Your task to perform on an android device: delete location history Image 0: 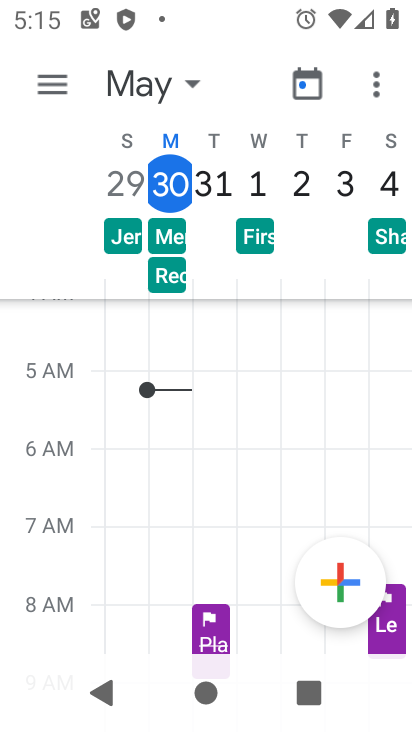
Step 0: press home button
Your task to perform on an android device: delete location history Image 1: 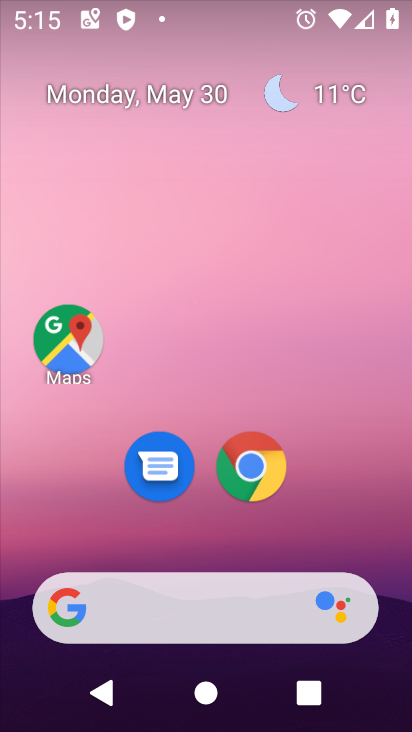
Step 1: drag from (333, 476) to (124, 6)
Your task to perform on an android device: delete location history Image 2: 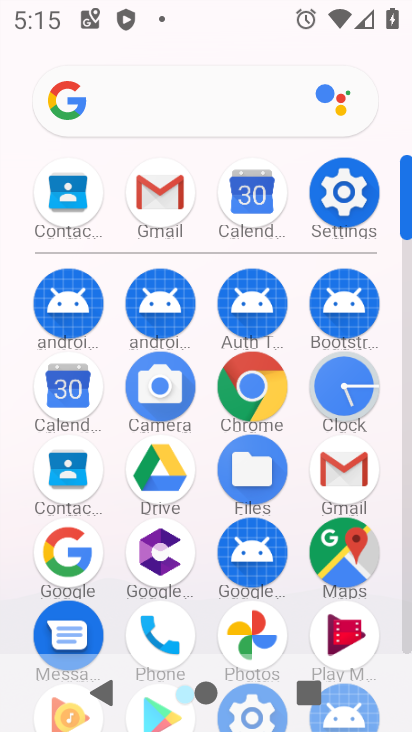
Step 2: click (334, 552)
Your task to perform on an android device: delete location history Image 3: 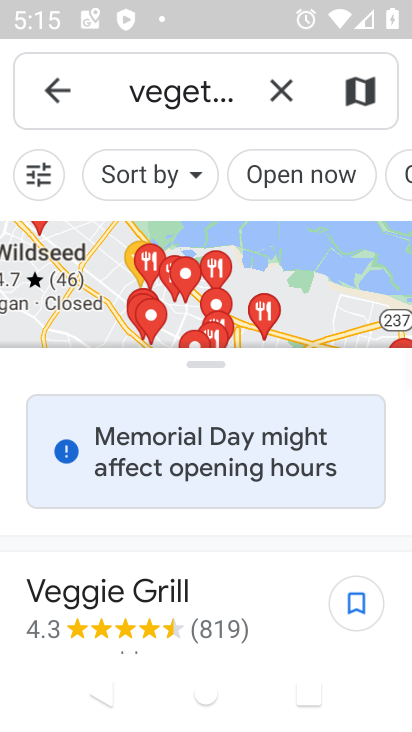
Step 3: click (58, 88)
Your task to perform on an android device: delete location history Image 4: 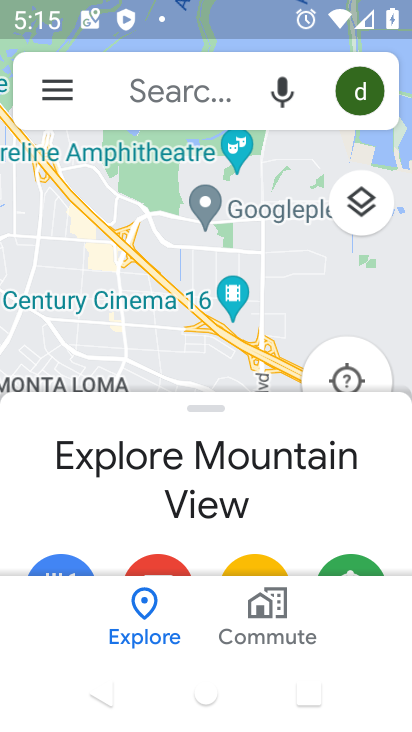
Step 4: click (59, 88)
Your task to perform on an android device: delete location history Image 5: 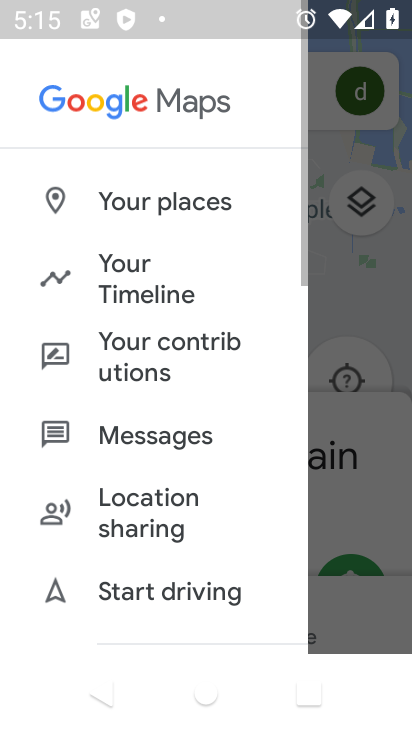
Step 5: drag from (194, 508) to (226, 82)
Your task to perform on an android device: delete location history Image 6: 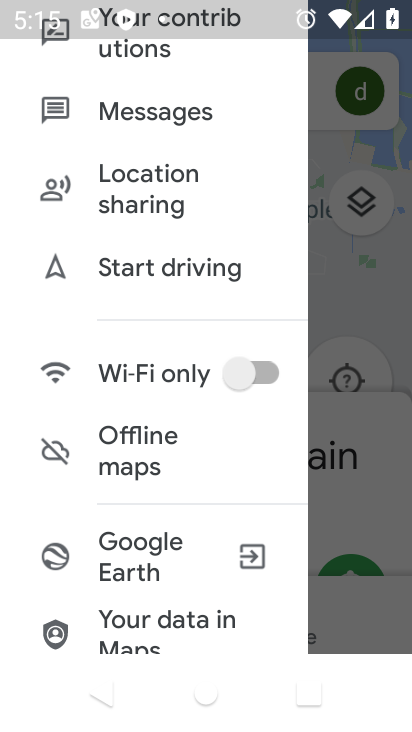
Step 6: drag from (177, 499) to (187, 106)
Your task to perform on an android device: delete location history Image 7: 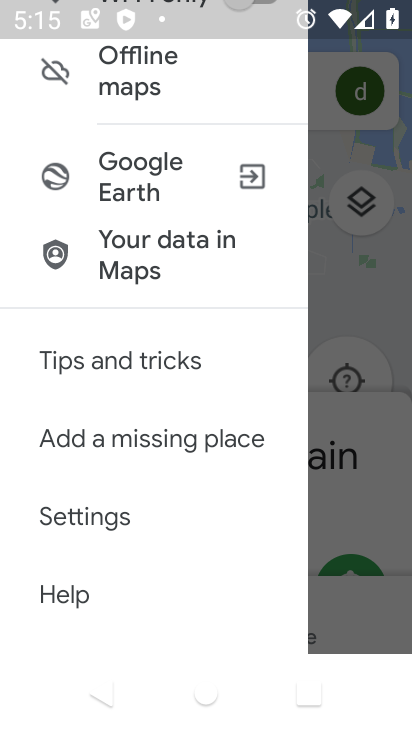
Step 7: drag from (143, 468) to (160, 133)
Your task to perform on an android device: delete location history Image 8: 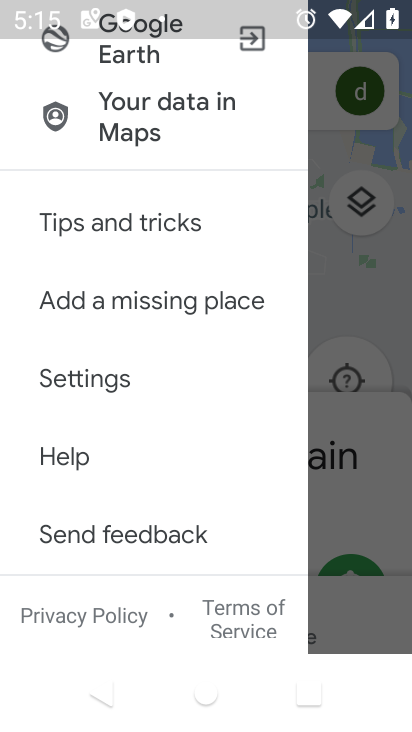
Step 8: click (92, 387)
Your task to perform on an android device: delete location history Image 9: 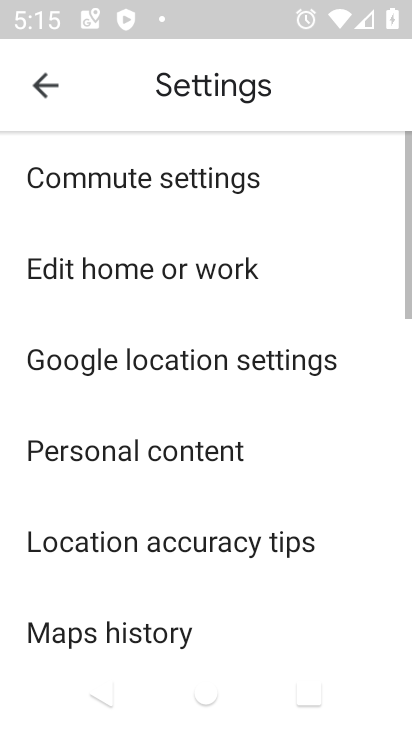
Step 9: drag from (169, 550) to (199, 56)
Your task to perform on an android device: delete location history Image 10: 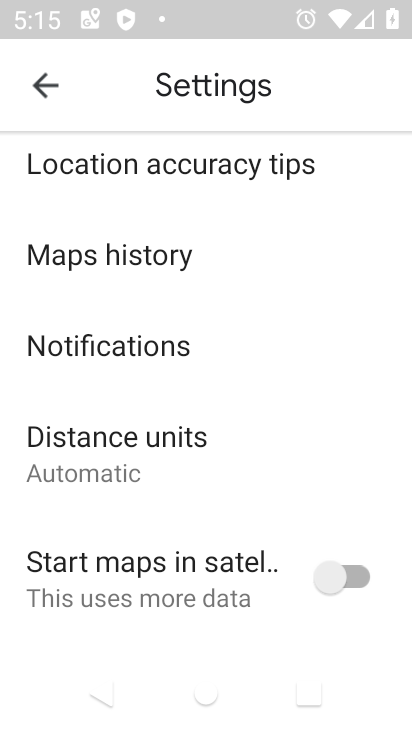
Step 10: click (137, 256)
Your task to perform on an android device: delete location history Image 11: 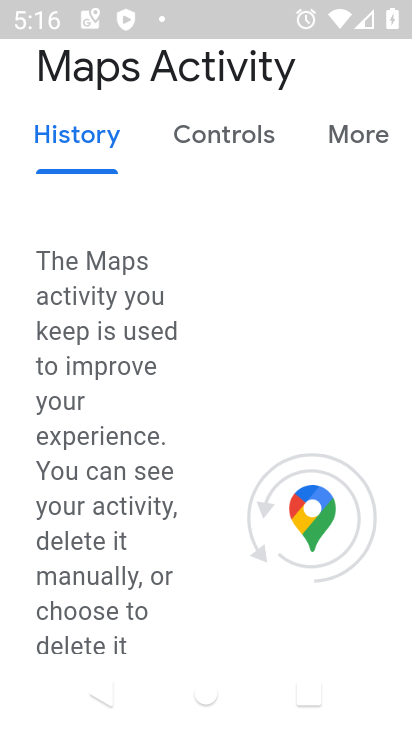
Step 11: drag from (124, 501) to (181, 66)
Your task to perform on an android device: delete location history Image 12: 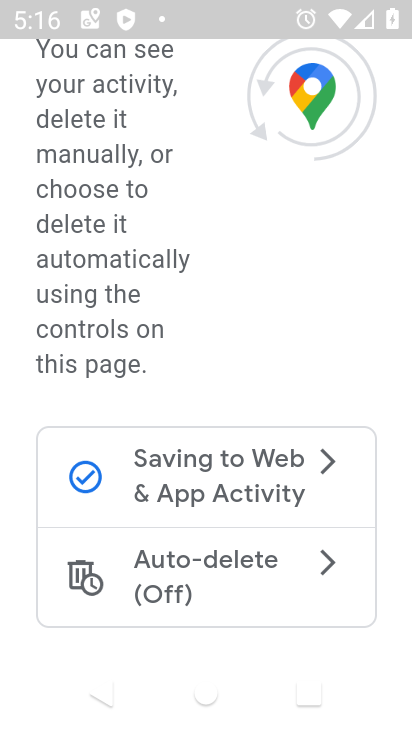
Step 12: drag from (168, 438) to (214, 131)
Your task to perform on an android device: delete location history Image 13: 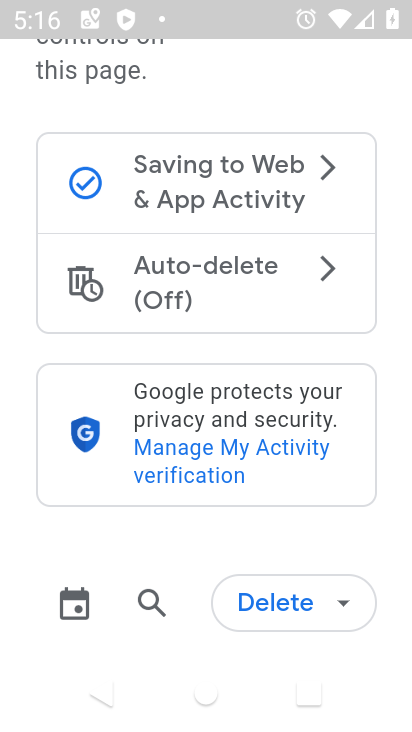
Step 13: click (329, 612)
Your task to perform on an android device: delete location history Image 14: 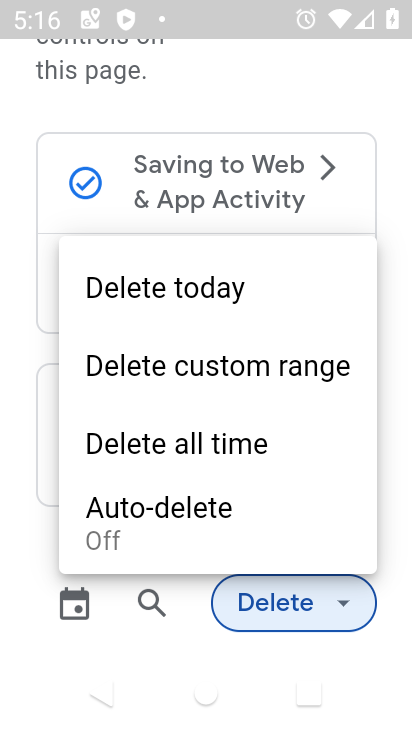
Step 14: click (206, 440)
Your task to perform on an android device: delete location history Image 15: 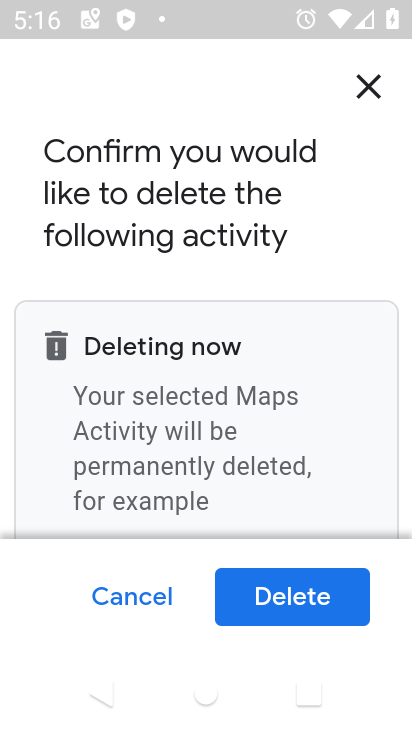
Step 15: click (335, 605)
Your task to perform on an android device: delete location history Image 16: 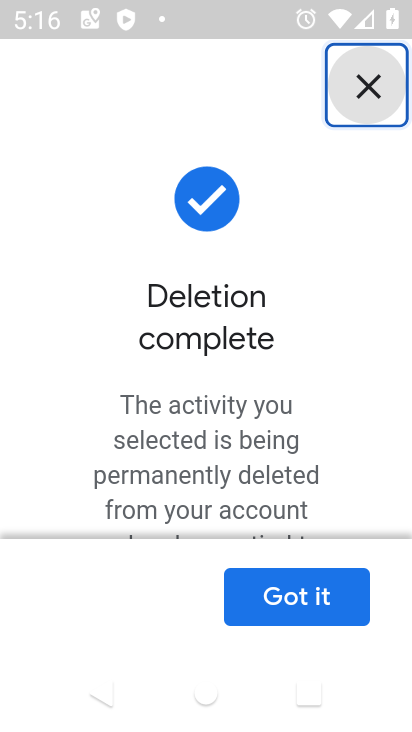
Step 16: task complete